Your task to perform on an android device: Open the calendar app, open the side menu, and click the "Day" option Image 0: 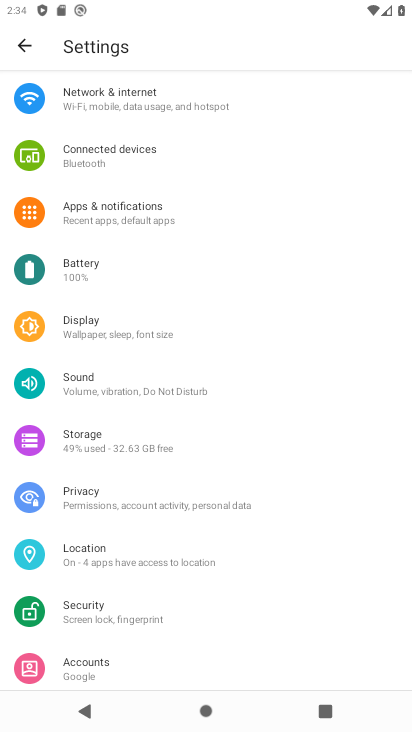
Step 0: press home button
Your task to perform on an android device: Open the calendar app, open the side menu, and click the "Day" option Image 1: 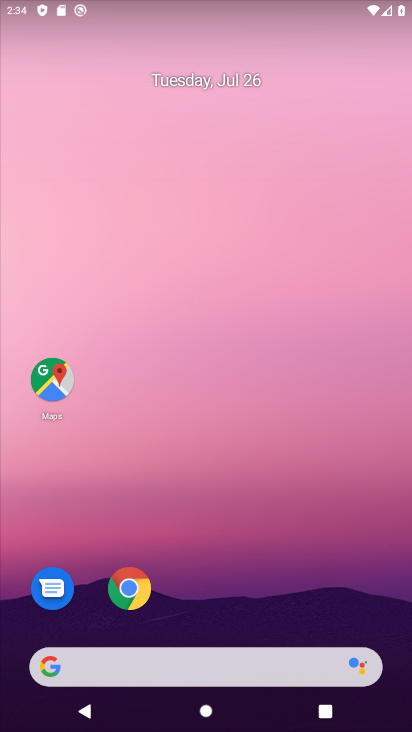
Step 1: drag from (230, 592) to (267, 80)
Your task to perform on an android device: Open the calendar app, open the side menu, and click the "Day" option Image 2: 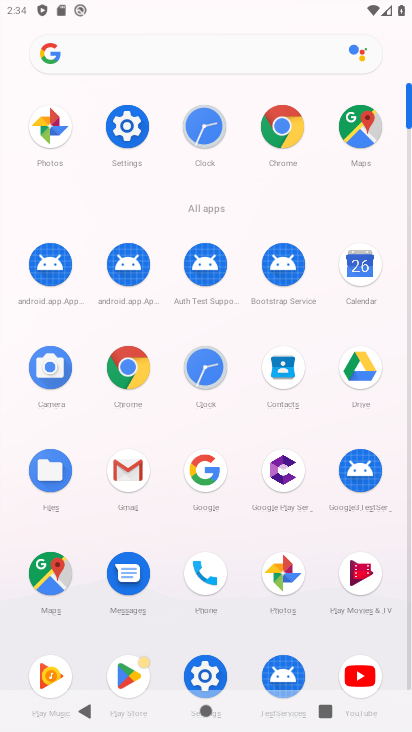
Step 2: click (372, 264)
Your task to perform on an android device: Open the calendar app, open the side menu, and click the "Day" option Image 3: 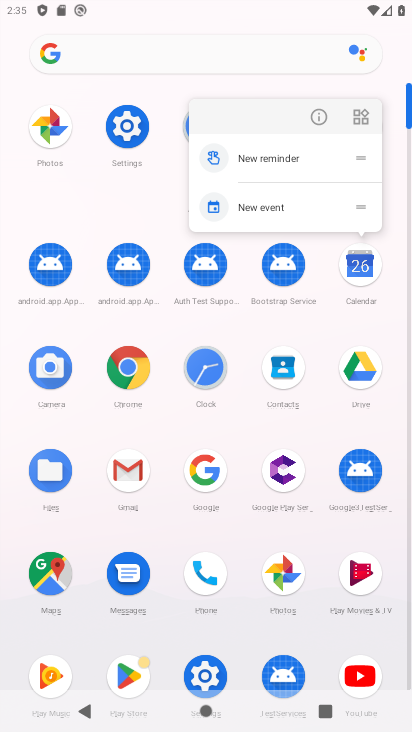
Step 3: click (247, 58)
Your task to perform on an android device: Open the calendar app, open the side menu, and click the "Day" option Image 4: 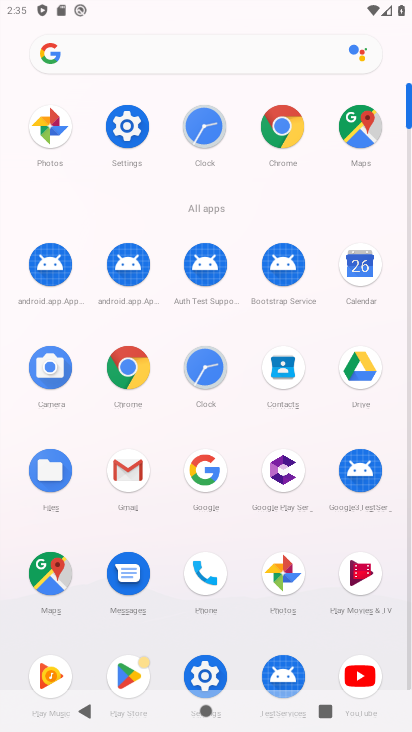
Step 4: click (357, 282)
Your task to perform on an android device: Open the calendar app, open the side menu, and click the "Day" option Image 5: 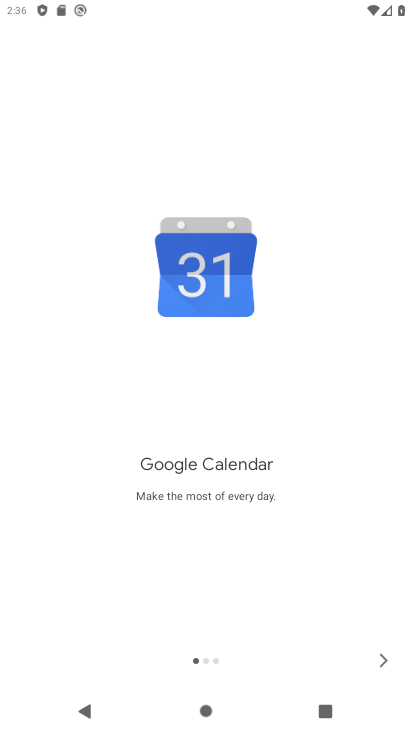
Step 5: click (394, 659)
Your task to perform on an android device: Open the calendar app, open the side menu, and click the "Day" option Image 6: 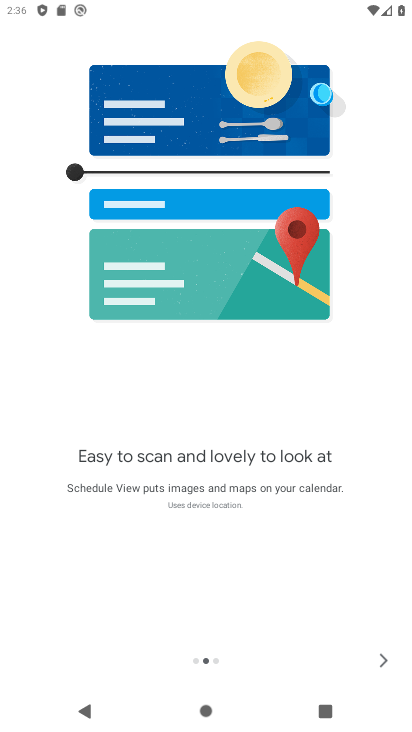
Step 6: click (389, 663)
Your task to perform on an android device: Open the calendar app, open the side menu, and click the "Day" option Image 7: 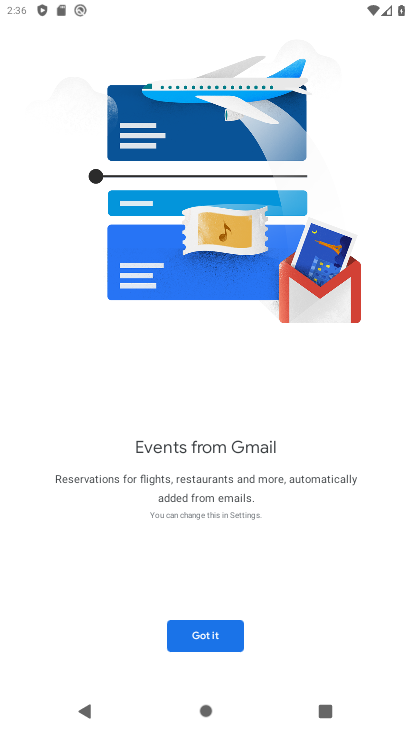
Step 7: click (212, 630)
Your task to perform on an android device: Open the calendar app, open the side menu, and click the "Day" option Image 8: 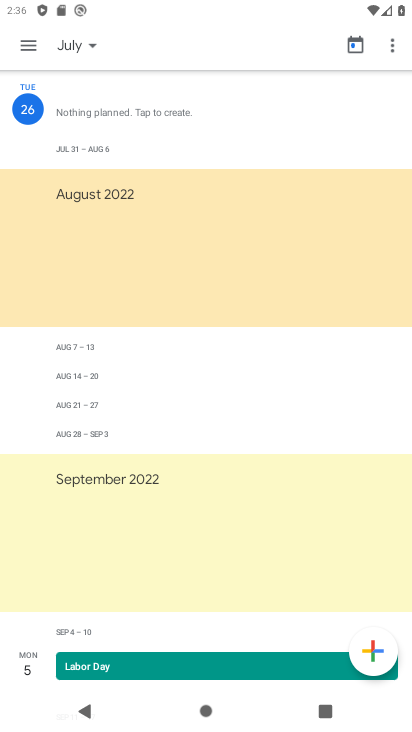
Step 8: click (30, 44)
Your task to perform on an android device: Open the calendar app, open the side menu, and click the "Day" option Image 9: 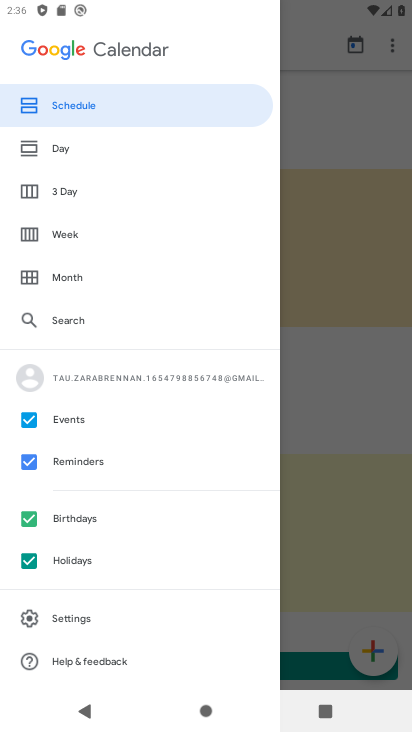
Step 9: click (43, 164)
Your task to perform on an android device: Open the calendar app, open the side menu, and click the "Day" option Image 10: 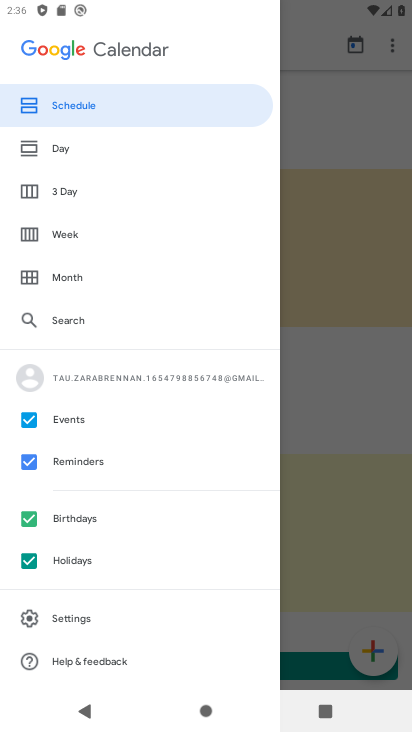
Step 10: click (52, 147)
Your task to perform on an android device: Open the calendar app, open the side menu, and click the "Day" option Image 11: 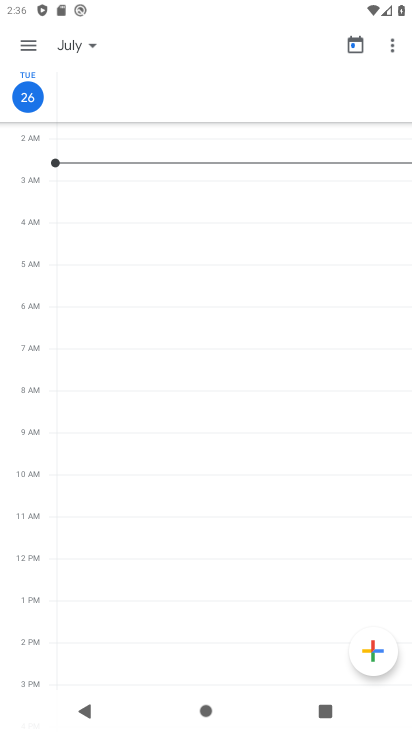
Step 11: task complete